Your task to perform on an android device: Open Maps and search for coffee Image 0: 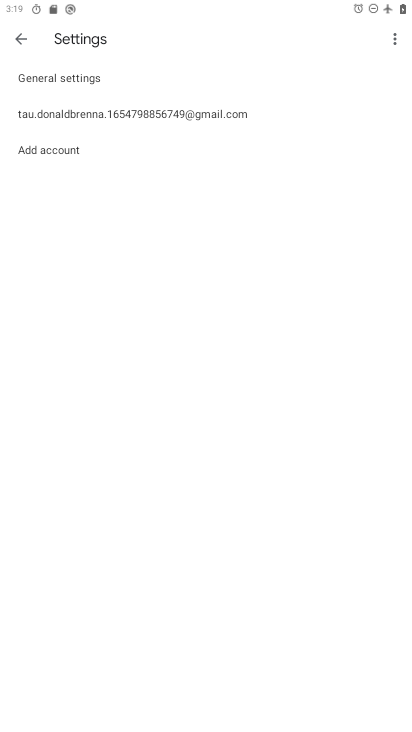
Step 0: press home button
Your task to perform on an android device: Open Maps and search for coffee Image 1: 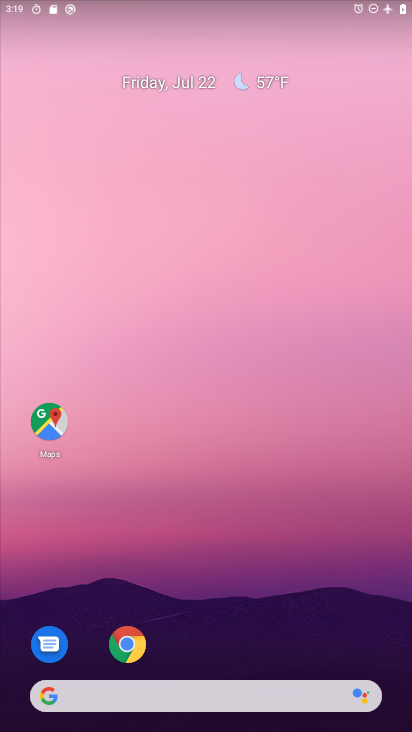
Step 1: click (26, 415)
Your task to perform on an android device: Open Maps and search for coffee Image 2: 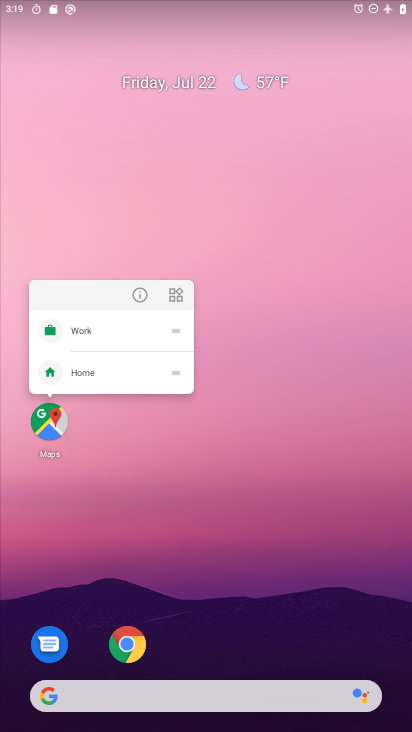
Step 2: click (48, 419)
Your task to perform on an android device: Open Maps and search for coffee Image 3: 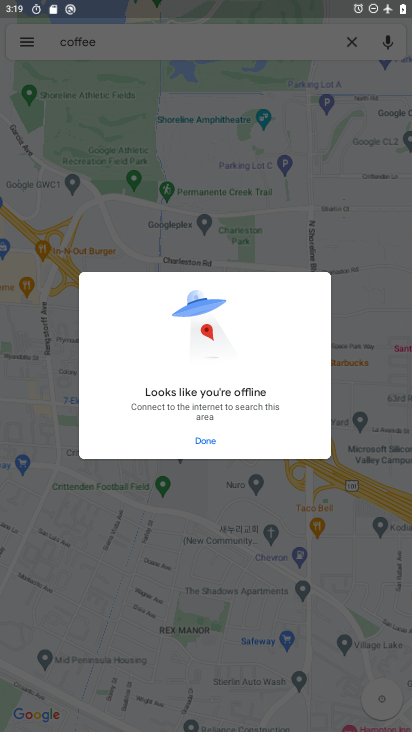
Step 3: task complete